Your task to perform on an android device: Go to display settings Image 0: 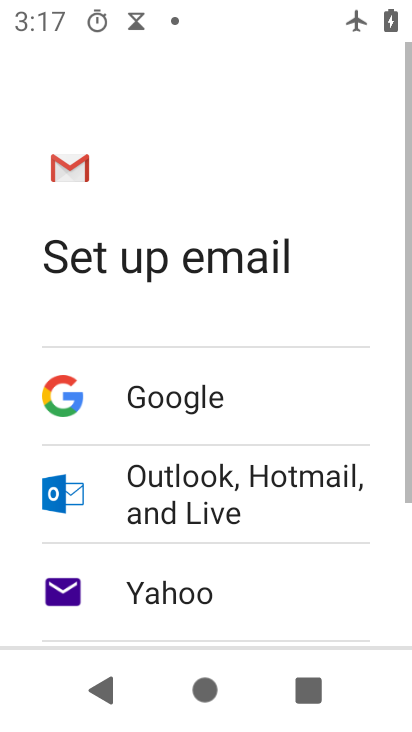
Step 0: press home button
Your task to perform on an android device: Go to display settings Image 1: 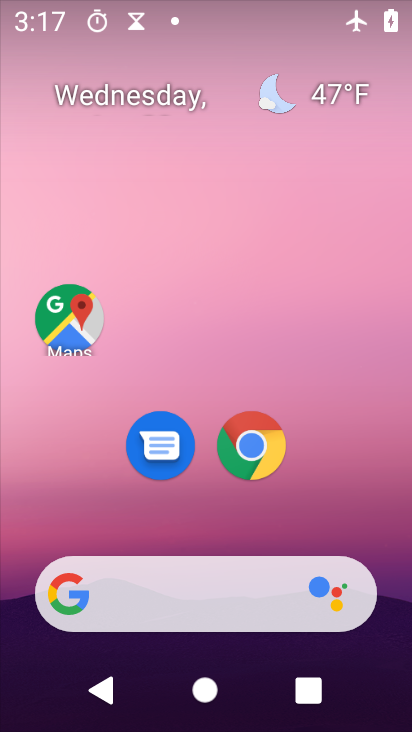
Step 1: drag from (379, 529) to (394, 14)
Your task to perform on an android device: Go to display settings Image 2: 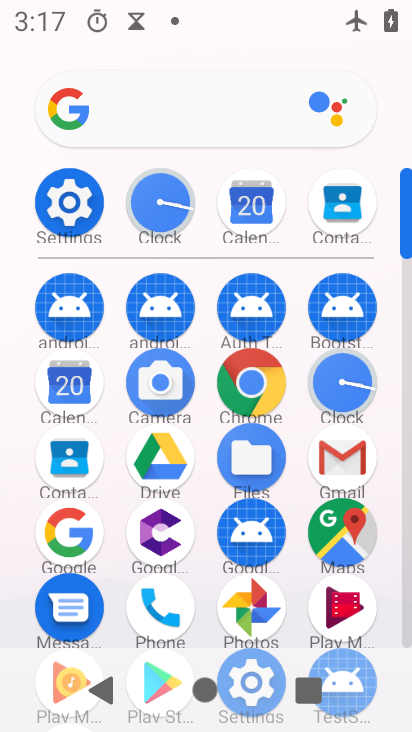
Step 2: click (64, 206)
Your task to perform on an android device: Go to display settings Image 3: 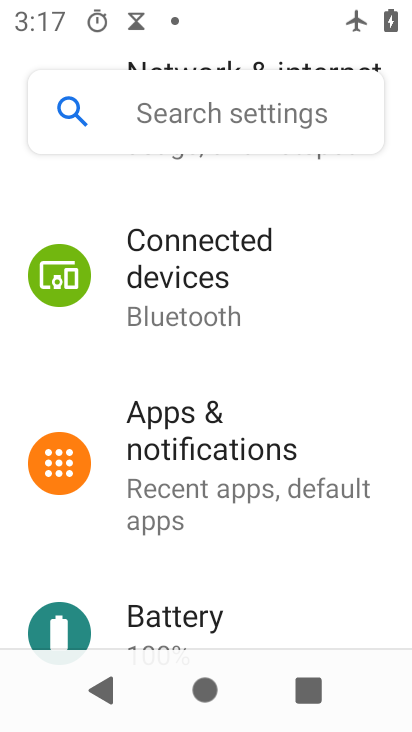
Step 3: drag from (331, 401) to (281, 55)
Your task to perform on an android device: Go to display settings Image 4: 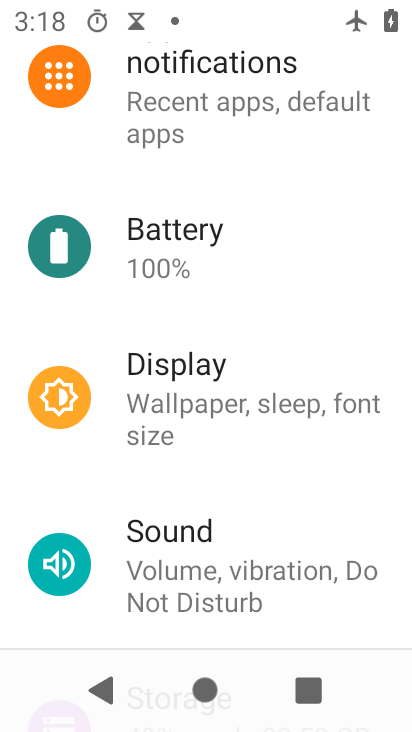
Step 4: click (184, 385)
Your task to perform on an android device: Go to display settings Image 5: 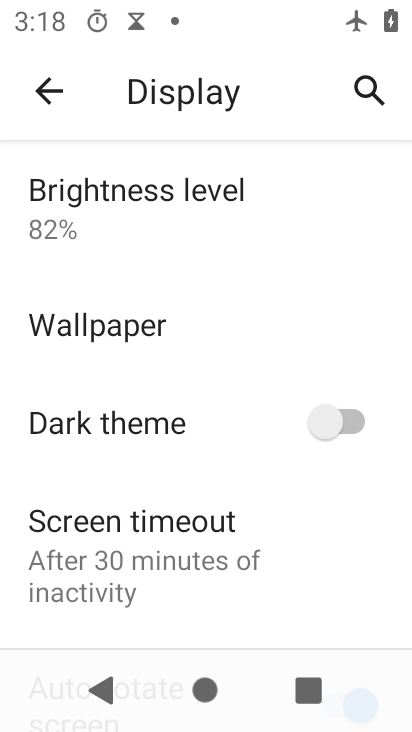
Step 5: task complete